Your task to perform on an android device: Open sound settings Image 0: 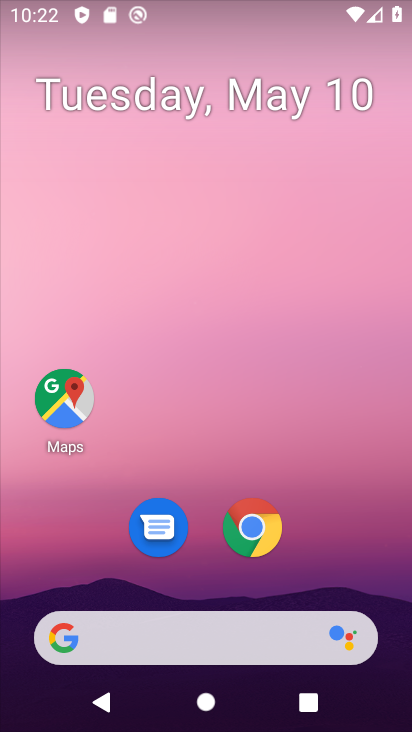
Step 0: drag from (338, 549) to (325, 175)
Your task to perform on an android device: Open sound settings Image 1: 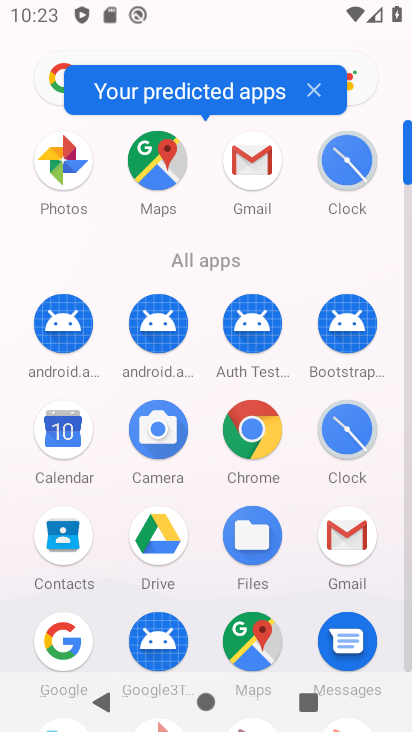
Step 1: drag from (283, 589) to (283, 266)
Your task to perform on an android device: Open sound settings Image 2: 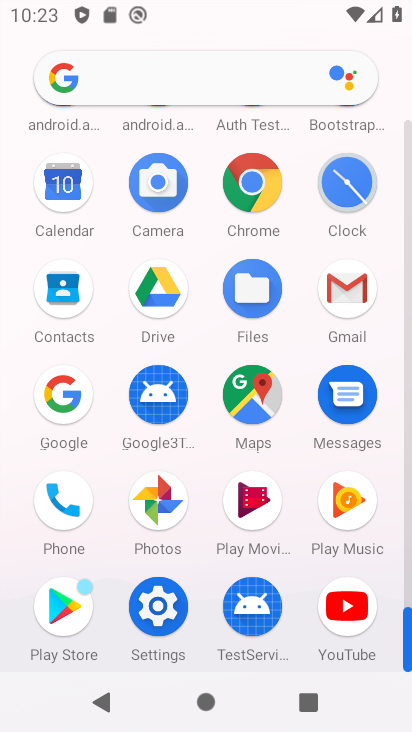
Step 2: click (166, 623)
Your task to perform on an android device: Open sound settings Image 3: 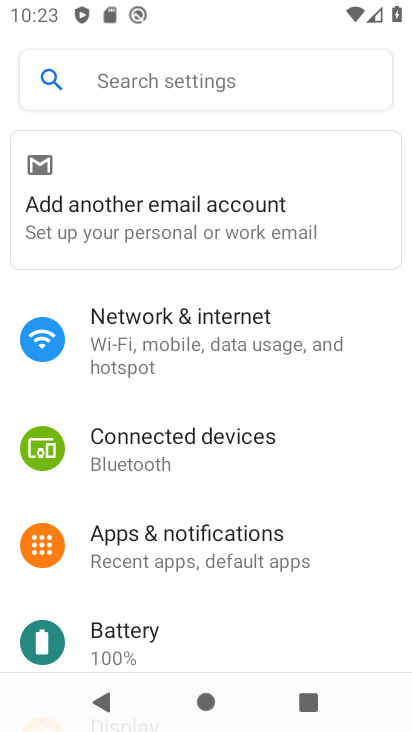
Step 3: drag from (227, 402) to (248, 336)
Your task to perform on an android device: Open sound settings Image 4: 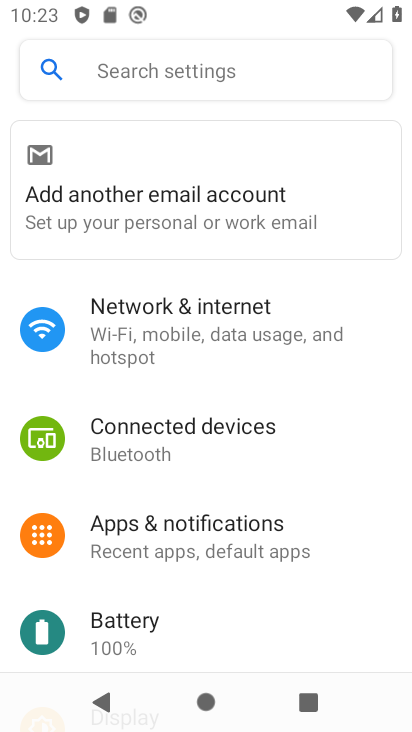
Step 4: drag from (231, 641) to (254, 273)
Your task to perform on an android device: Open sound settings Image 5: 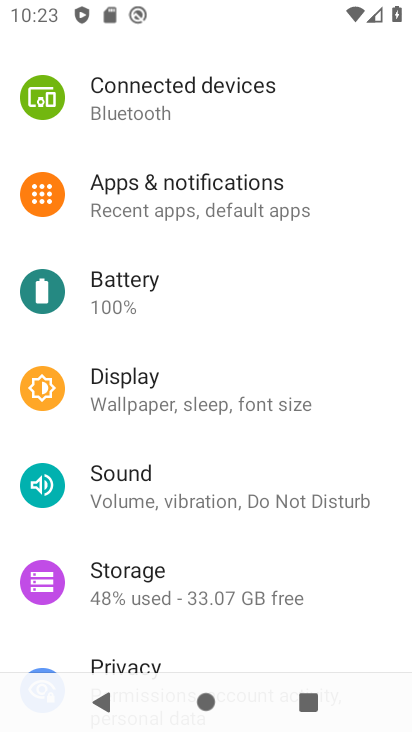
Step 5: click (167, 490)
Your task to perform on an android device: Open sound settings Image 6: 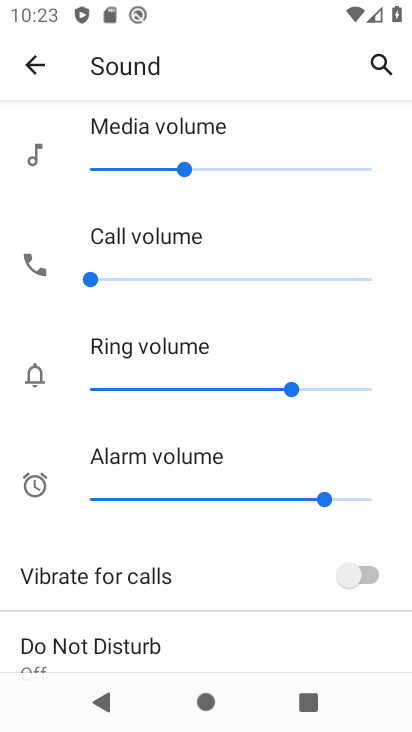
Step 6: task complete